Your task to perform on an android device: Show me popular games on the Play Store Image 0: 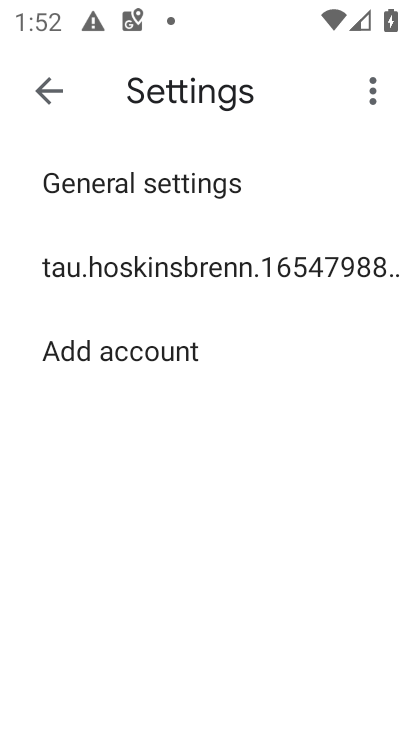
Step 0: press home button
Your task to perform on an android device: Show me popular games on the Play Store Image 1: 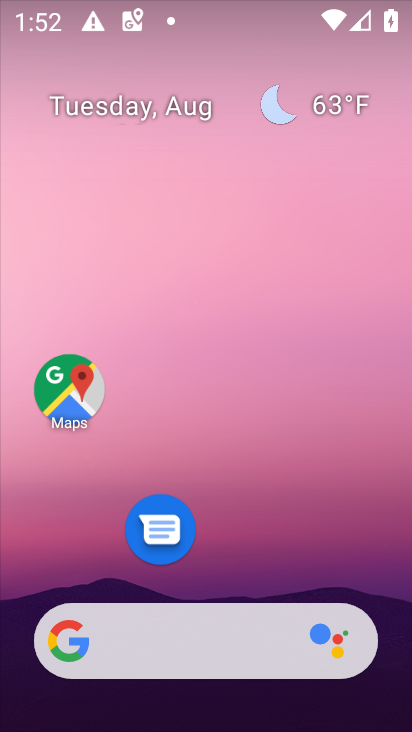
Step 1: drag from (241, 590) to (182, 86)
Your task to perform on an android device: Show me popular games on the Play Store Image 2: 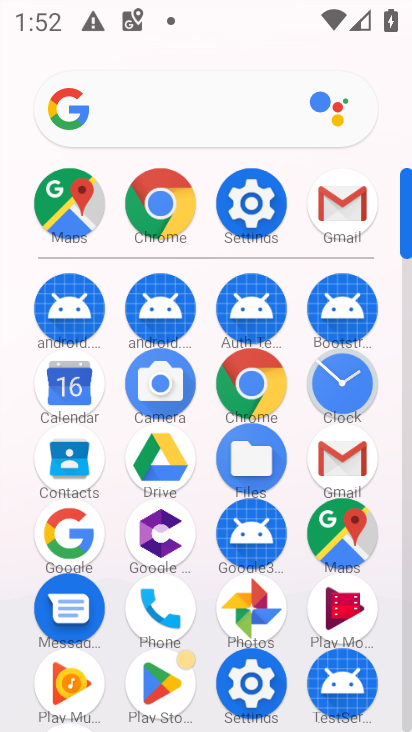
Step 2: click (169, 688)
Your task to perform on an android device: Show me popular games on the Play Store Image 3: 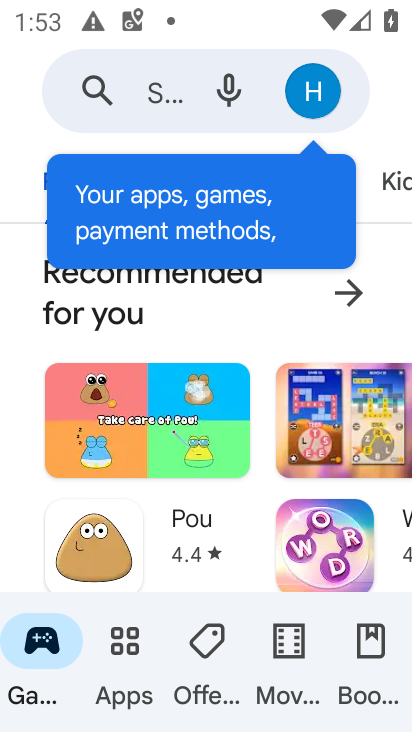
Step 3: click (38, 626)
Your task to perform on an android device: Show me popular games on the Play Store Image 4: 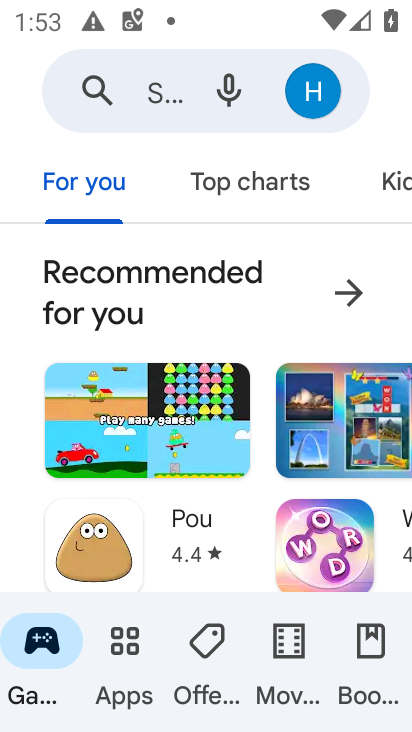
Step 4: click (216, 184)
Your task to perform on an android device: Show me popular games on the Play Store Image 5: 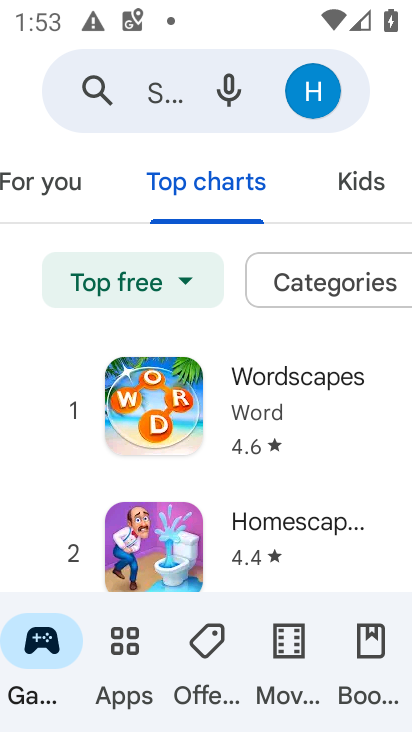
Step 5: task complete